Your task to perform on an android device: Open settings on Google Maps Image 0: 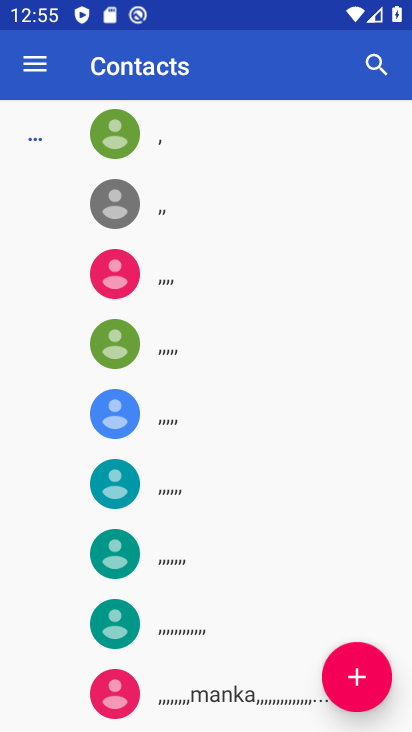
Step 0: press home button
Your task to perform on an android device: Open settings on Google Maps Image 1: 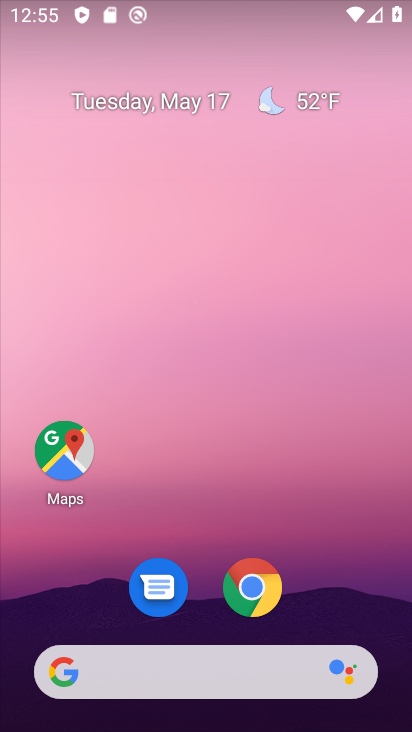
Step 1: click (40, 462)
Your task to perform on an android device: Open settings on Google Maps Image 2: 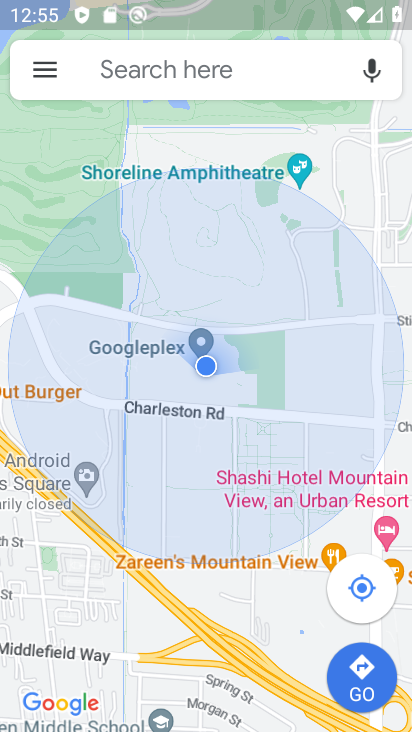
Step 2: click (32, 75)
Your task to perform on an android device: Open settings on Google Maps Image 3: 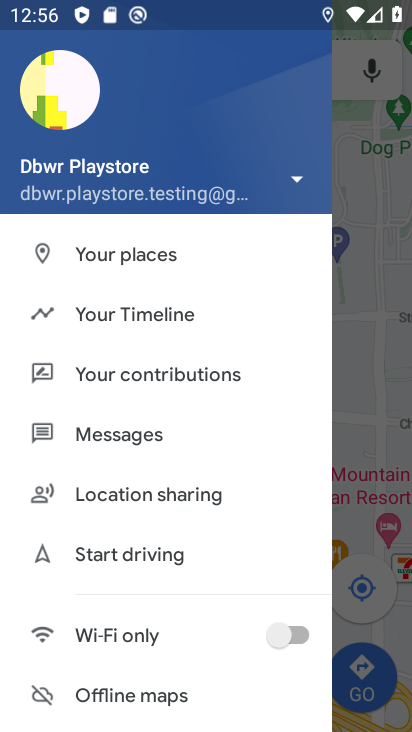
Step 3: drag from (171, 629) to (160, 362)
Your task to perform on an android device: Open settings on Google Maps Image 4: 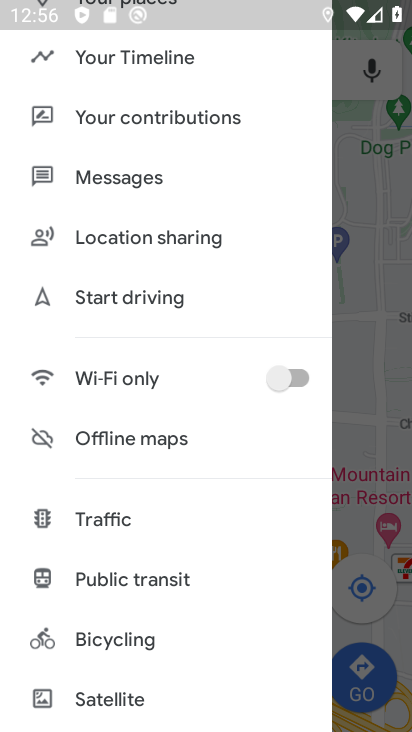
Step 4: drag from (109, 418) to (127, 195)
Your task to perform on an android device: Open settings on Google Maps Image 5: 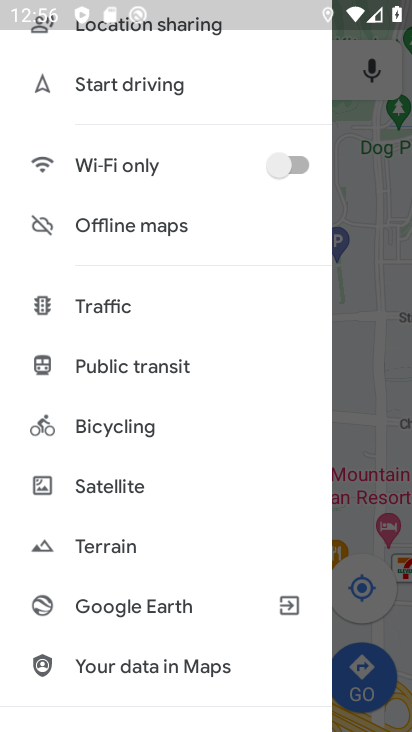
Step 5: drag from (147, 588) to (142, 516)
Your task to perform on an android device: Open settings on Google Maps Image 6: 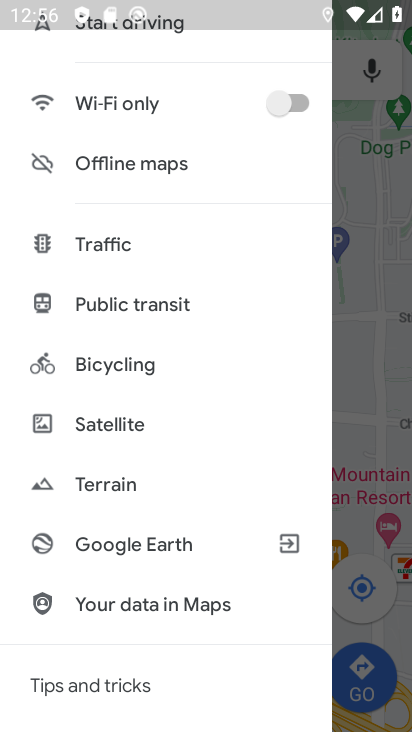
Step 6: drag from (138, 503) to (127, 647)
Your task to perform on an android device: Open settings on Google Maps Image 7: 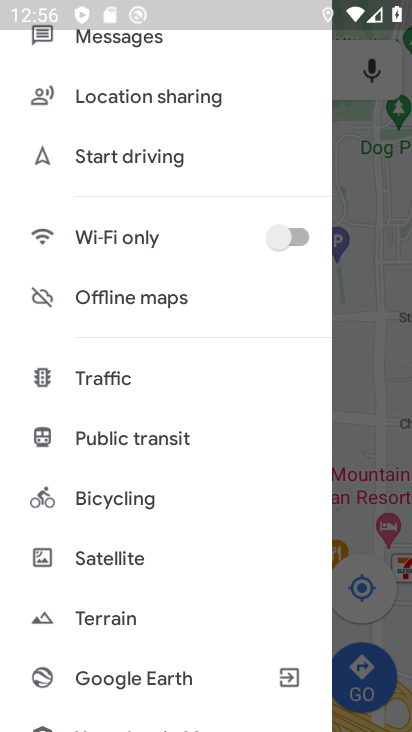
Step 7: drag from (125, 251) to (115, 603)
Your task to perform on an android device: Open settings on Google Maps Image 8: 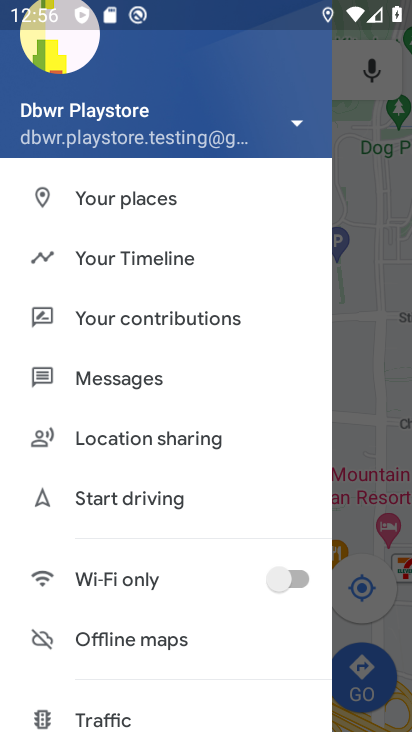
Step 8: drag from (144, 532) to (114, 143)
Your task to perform on an android device: Open settings on Google Maps Image 9: 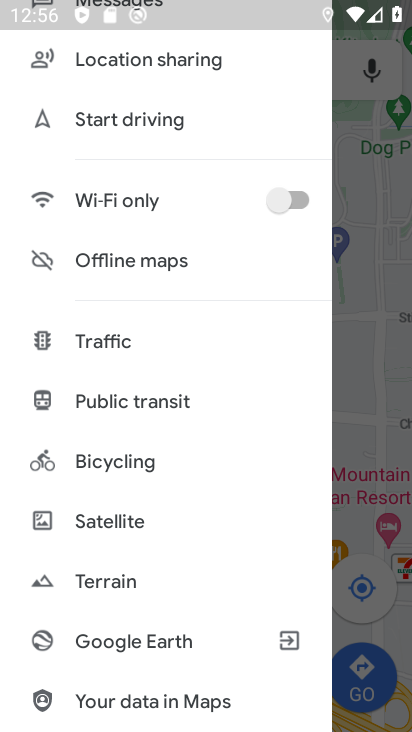
Step 9: drag from (188, 575) to (168, 392)
Your task to perform on an android device: Open settings on Google Maps Image 10: 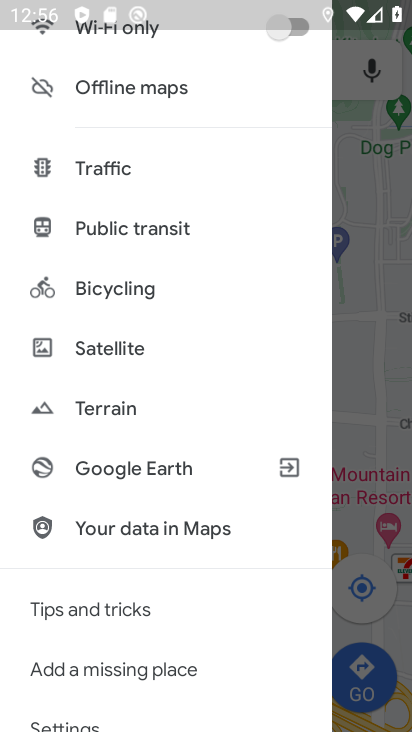
Step 10: drag from (181, 609) to (148, 417)
Your task to perform on an android device: Open settings on Google Maps Image 11: 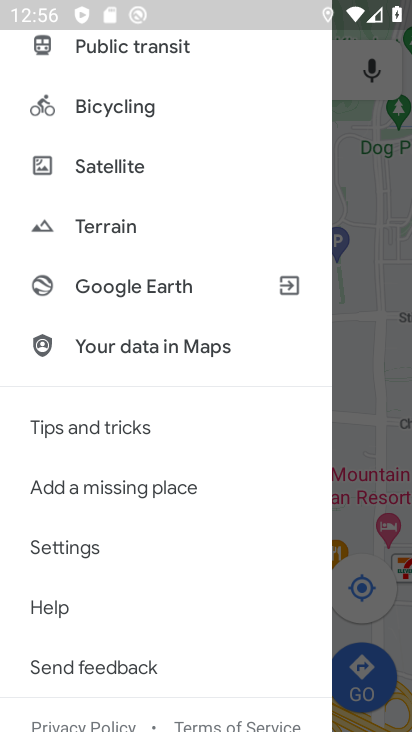
Step 11: click (157, 571)
Your task to perform on an android device: Open settings on Google Maps Image 12: 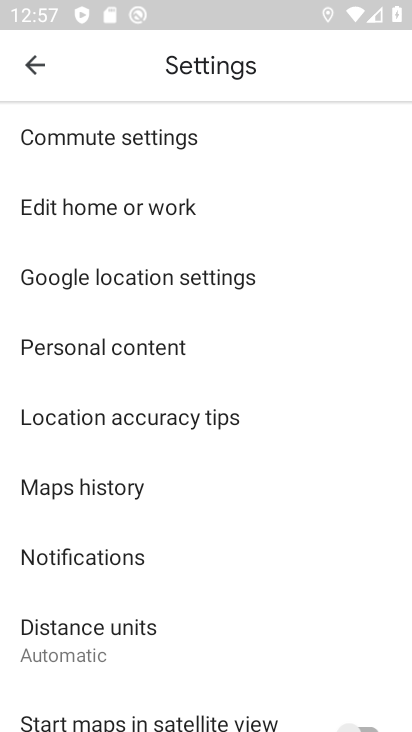
Step 12: drag from (178, 614) to (137, 356)
Your task to perform on an android device: Open settings on Google Maps Image 13: 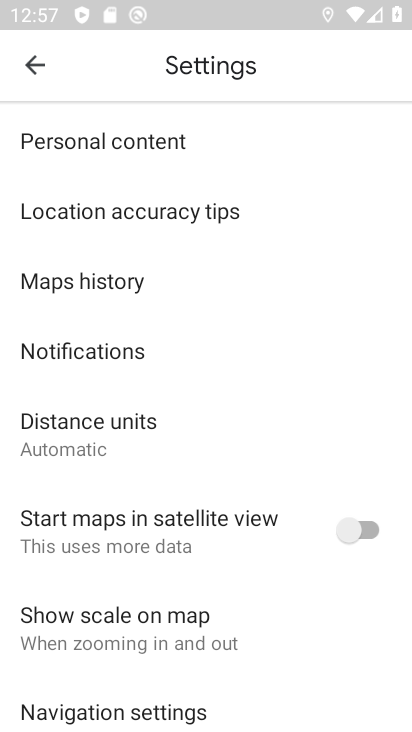
Step 13: drag from (216, 291) to (292, 644)
Your task to perform on an android device: Open settings on Google Maps Image 14: 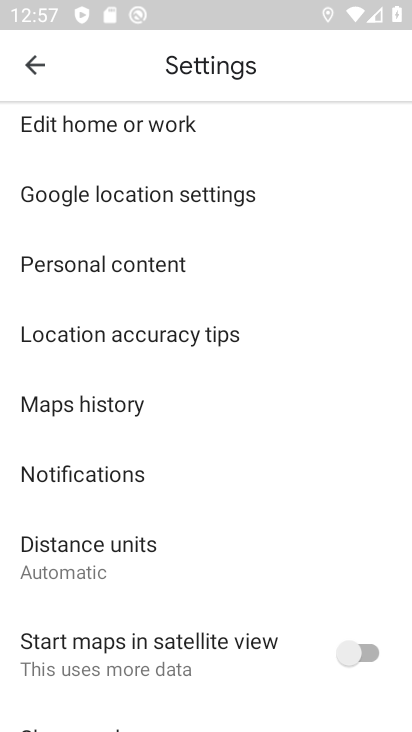
Step 14: drag from (171, 556) to (171, 343)
Your task to perform on an android device: Open settings on Google Maps Image 15: 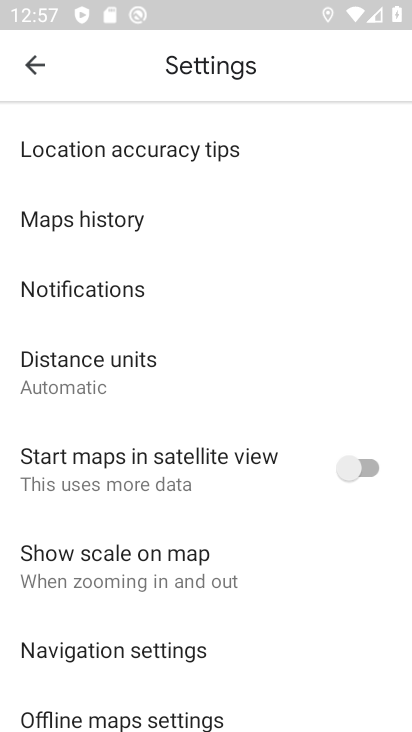
Step 15: drag from (207, 604) to (202, 354)
Your task to perform on an android device: Open settings on Google Maps Image 16: 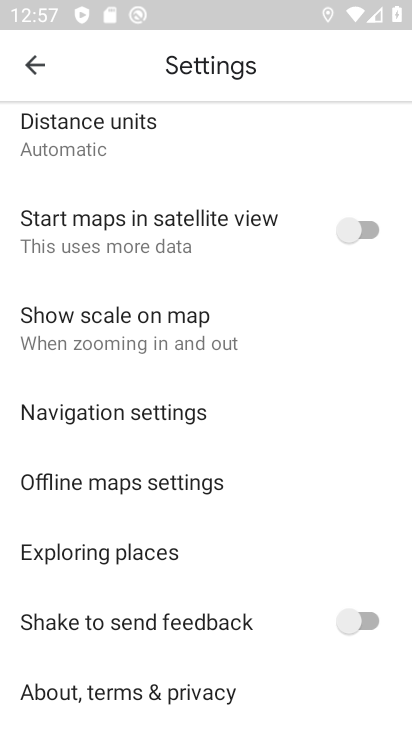
Step 16: drag from (295, 639) to (209, 288)
Your task to perform on an android device: Open settings on Google Maps Image 17: 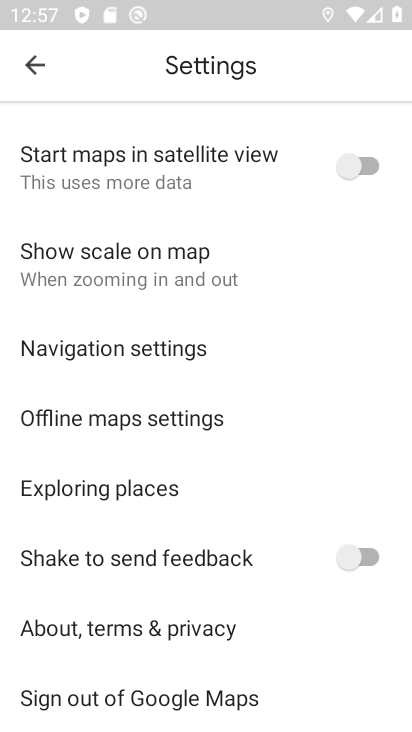
Step 17: drag from (209, 288) to (187, 647)
Your task to perform on an android device: Open settings on Google Maps Image 18: 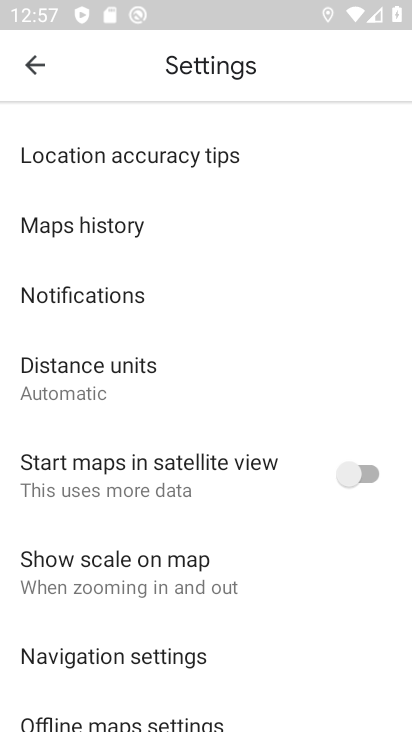
Step 18: drag from (177, 365) to (206, 541)
Your task to perform on an android device: Open settings on Google Maps Image 19: 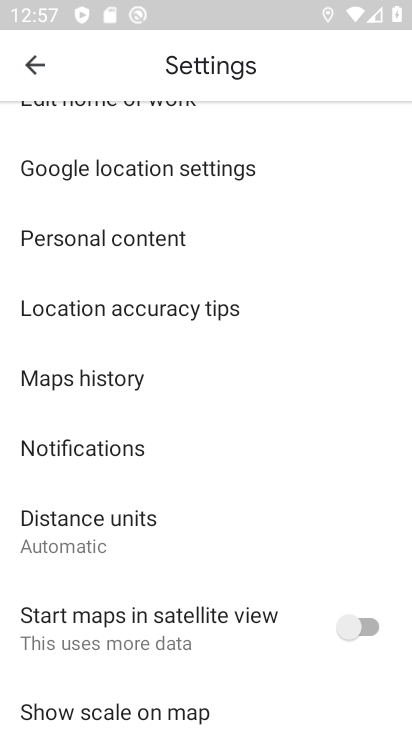
Step 19: drag from (220, 591) to (242, 361)
Your task to perform on an android device: Open settings on Google Maps Image 20: 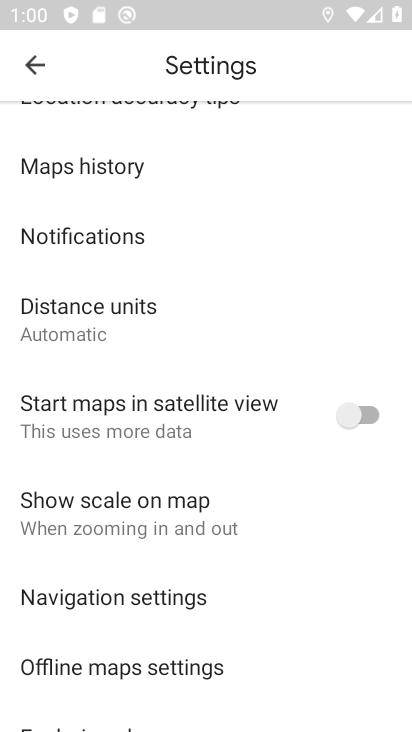
Step 20: drag from (263, 581) to (279, 271)
Your task to perform on an android device: Open settings on Google Maps Image 21: 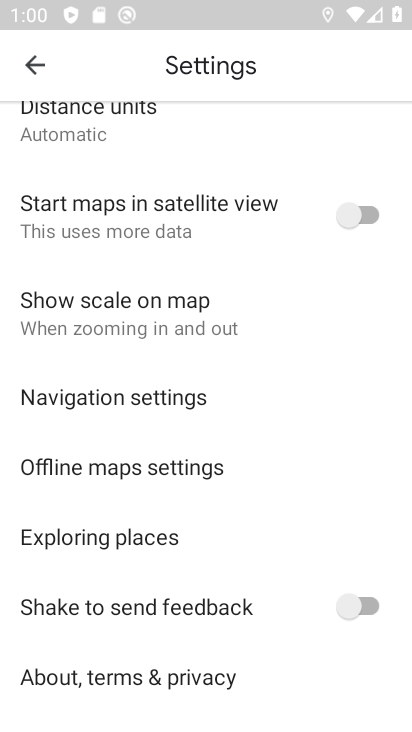
Step 21: click (198, 364)
Your task to perform on an android device: Open settings on Google Maps Image 22: 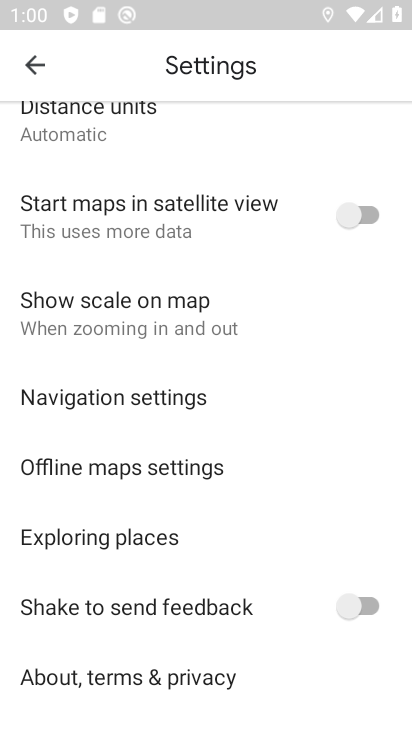
Step 22: click (45, 87)
Your task to perform on an android device: Open settings on Google Maps Image 23: 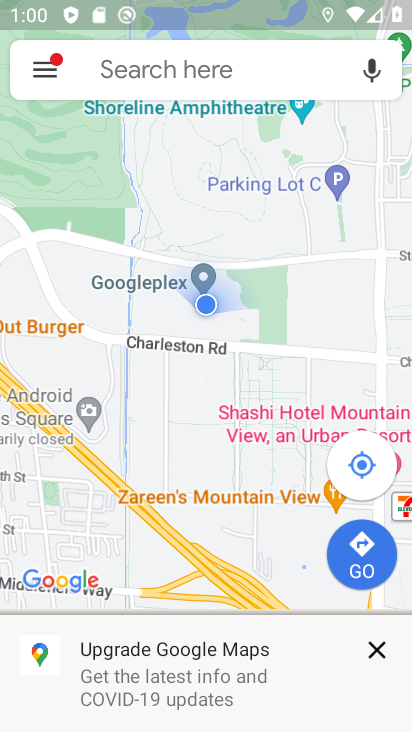
Step 23: click (56, 76)
Your task to perform on an android device: Open settings on Google Maps Image 24: 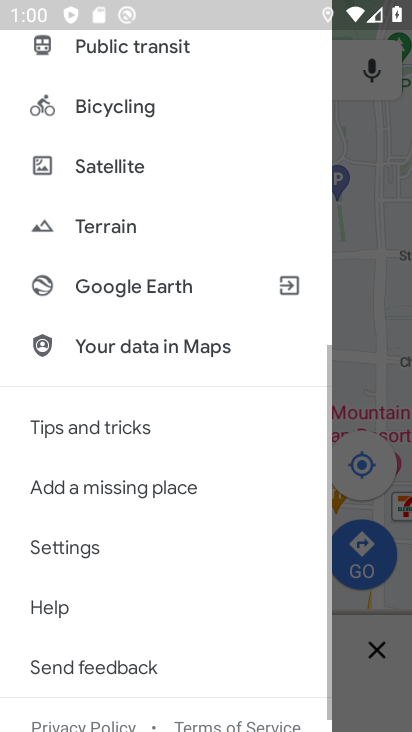
Step 24: drag from (101, 622) to (171, 331)
Your task to perform on an android device: Open settings on Google Maps Image 25: 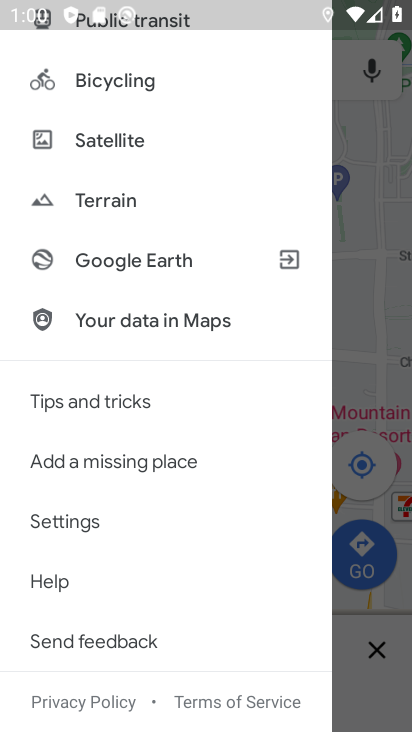
Step 25: click (107, 514)
Your task to perform on an android device: Open settings on Google Maps Image 26: 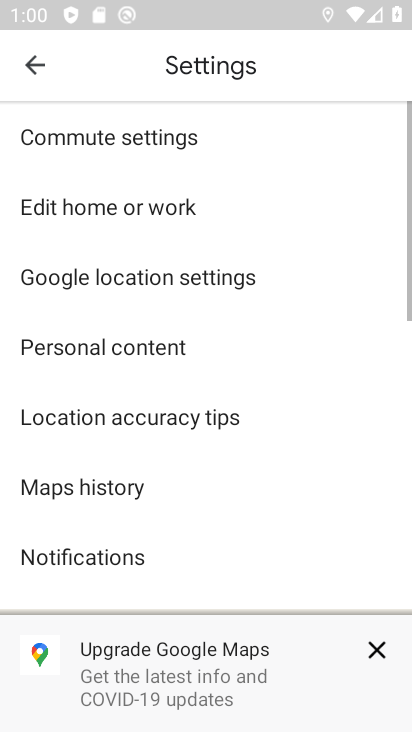
Step 26: task complete